Your task to perform on an android device: turn off translation in the chrome app Image 0: 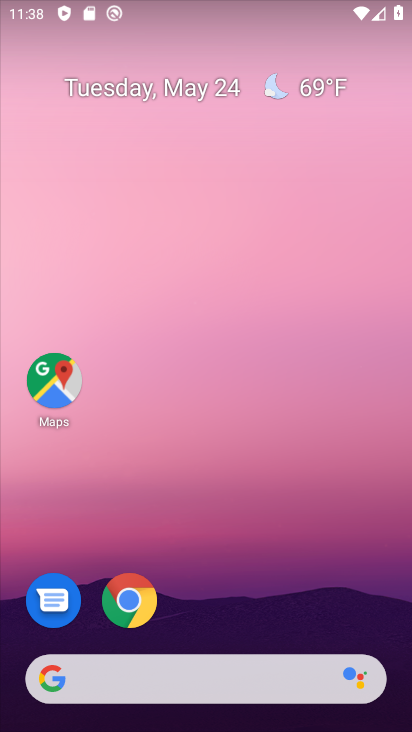
Step 0: drag from (375, 622) to (363, 180)
Your task to perform on an android device: turn off translation in the chrome app Image 1: 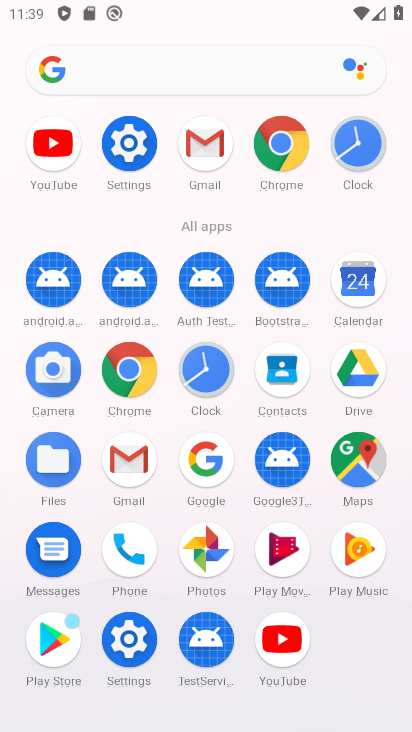
Step 1: click (132, 366)
Your task to perform on an android device: turn off translation in the chrome app Image 2: 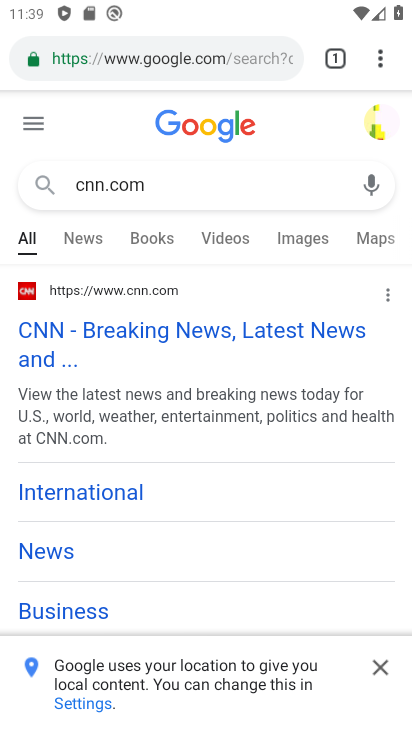
Step 2: click (384, 60)
Your task to perform on an android device: turn off translation in the chrome app Image 3: 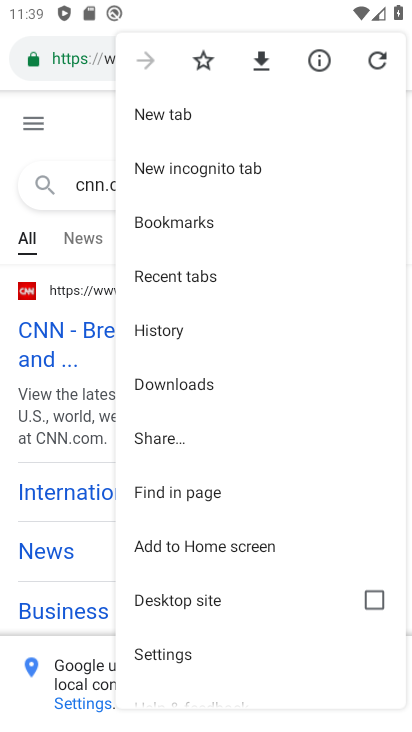
Step 3: drag from (244, 636) to (270, 499)
Your task to perform on an android device: turn off translation in the chrome app Image 4: 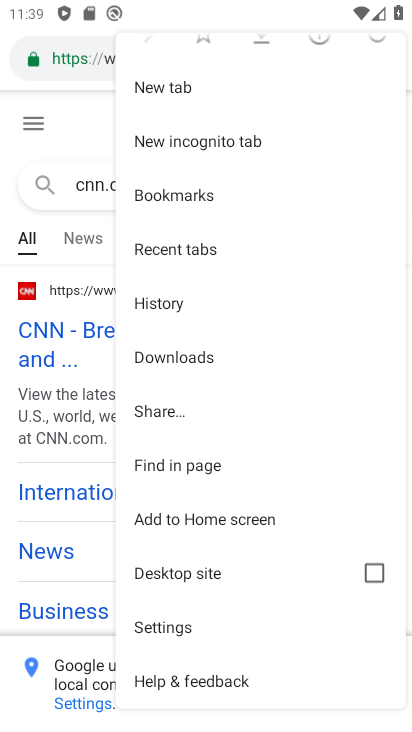
Step 4: click (222, 630)
Your task to perform on an android device: turn off translation in the chrome app Image 5: 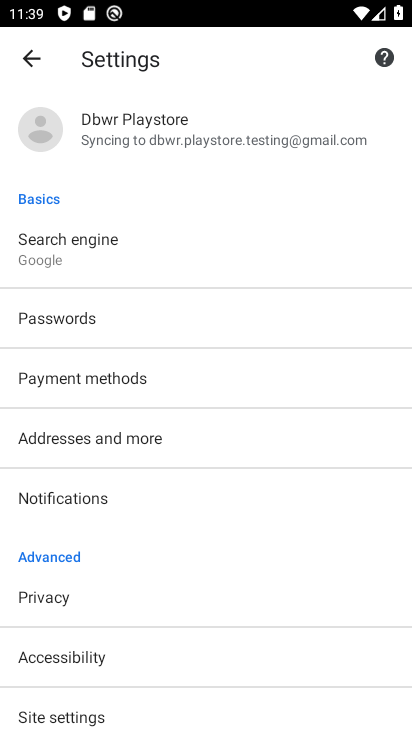
Step 5: drag from (281, 573) to (307, 479)
Your task to perform on an android device: turn off translation in the chrome app Image 6: 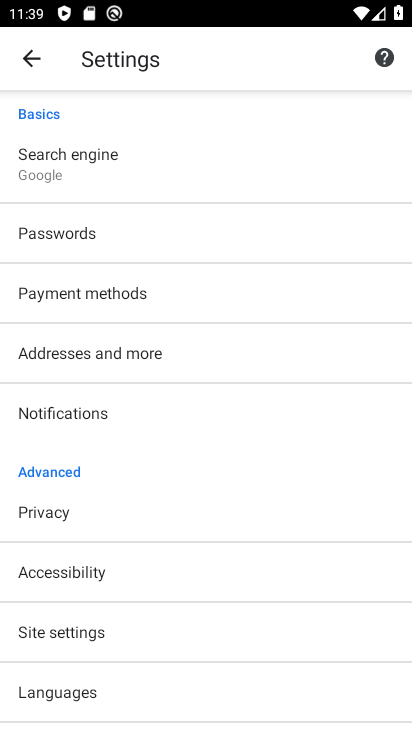
Step 6: drag from (326, 642) to (317, 507)
Your task to perform on an android device: turn off translation in the chrome app Image 7: 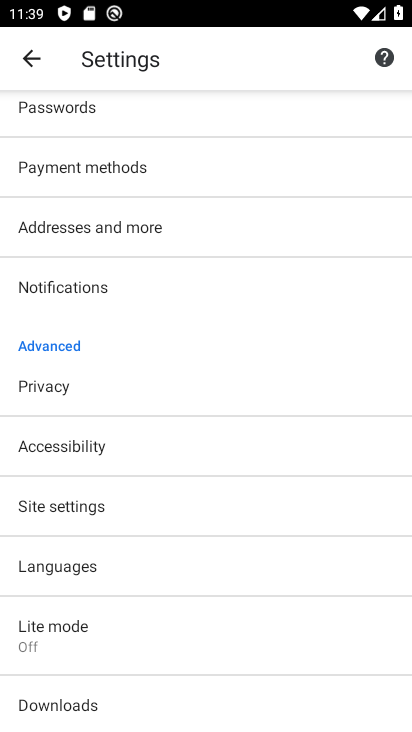
Step 7: drag from (298, 628) to (317, 537)
Your task to perform on an android device: turn off translation in the chrome app Image 8: 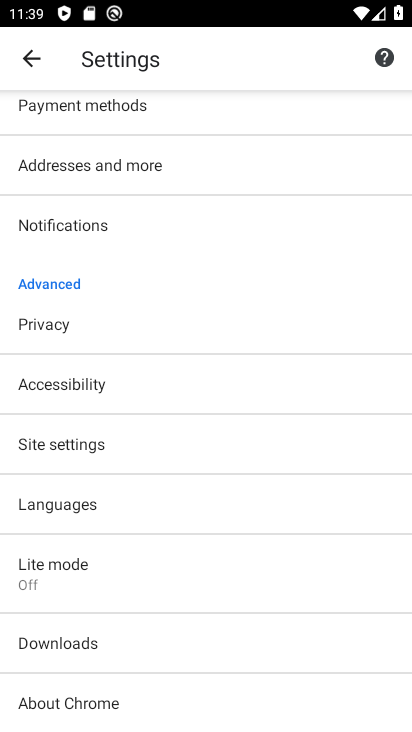
Step 8: drag from (336, 647) to (324, 536)
Your task to perform on an android device: turn off translation in the chrome app Image 9: 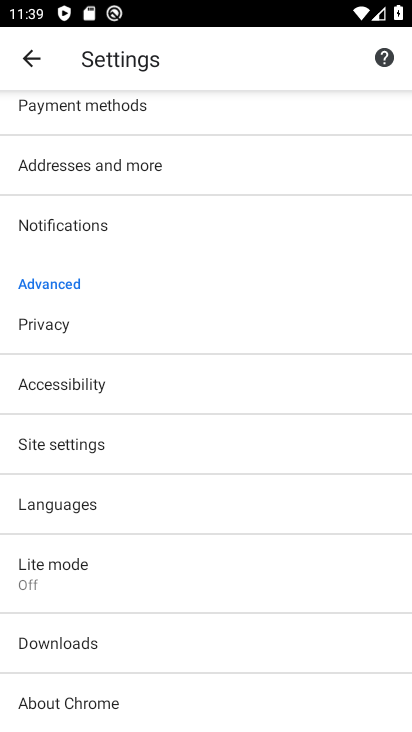
Step 9: drag from (341, 323) to (341, 405)
Your task to perform on an android device: turn off translation in the chrome app Image 10: 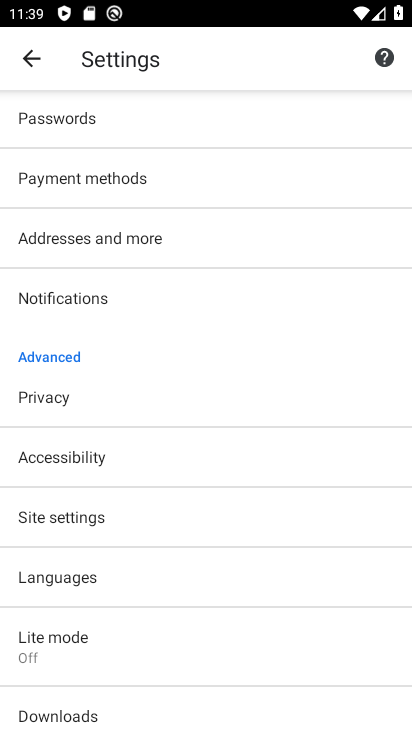
Step 10: drag from (346, 291) to (322, 430)
Your task to perform on an android device: turn off translation in the chrome app Image 11: 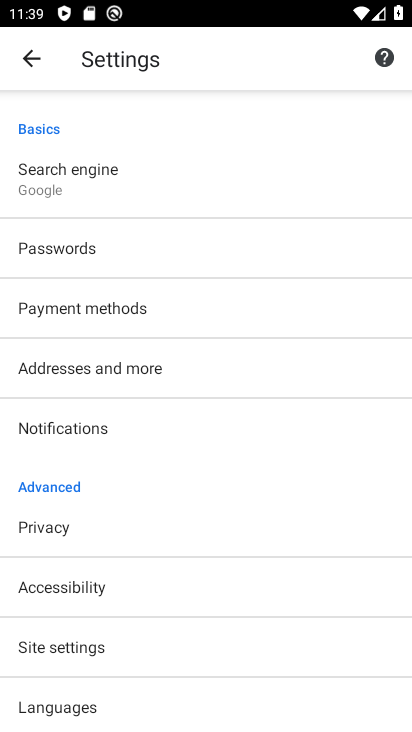
Step 11: drag from (303, 276) to (290, 365)
Your task to perform on an android device: turn off translation in the chrome app Image 12: 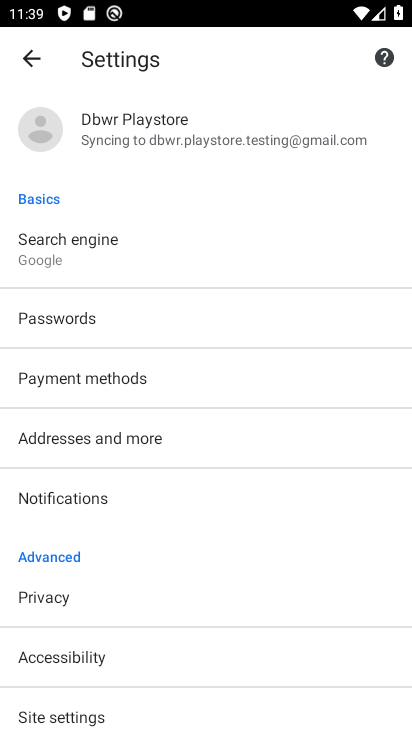
Step 12: drag from (304, 270) to (295, 434)
Your task to perform on an android device: turn off translation in the chrome app Image 13: 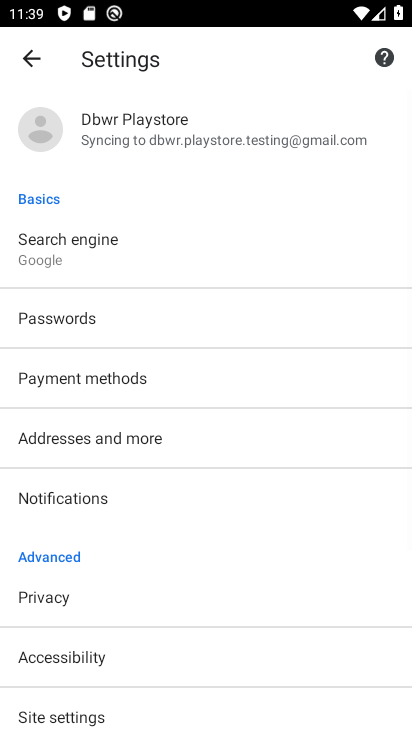
Step 13: drag from (298, 516) to (314, 409)
Your task to perform on an android device: turn off translation in the chrome app Image 14: 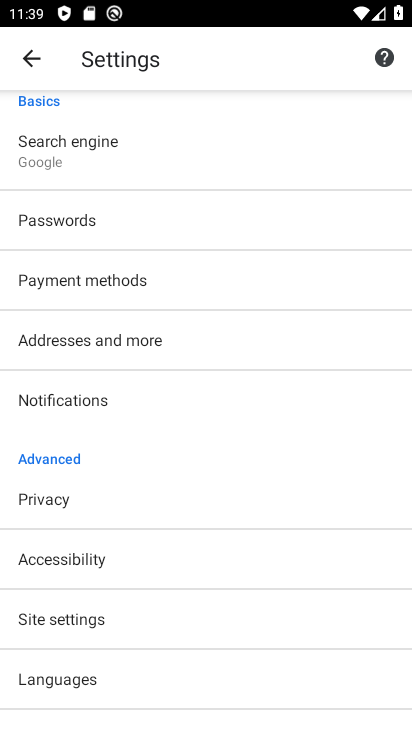
Step 14: drag from (335, 528) to (360, 412)
Your task to perform on an android device: turn off translation in the chrome app Image 15: 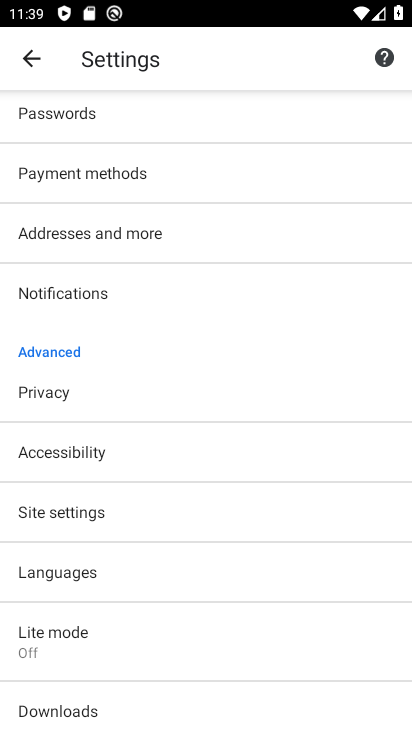
Step 15: drag from (346, 534) to (339, 418)
Your task to perform on an android device: turn off translation in the chrome app Image 16: 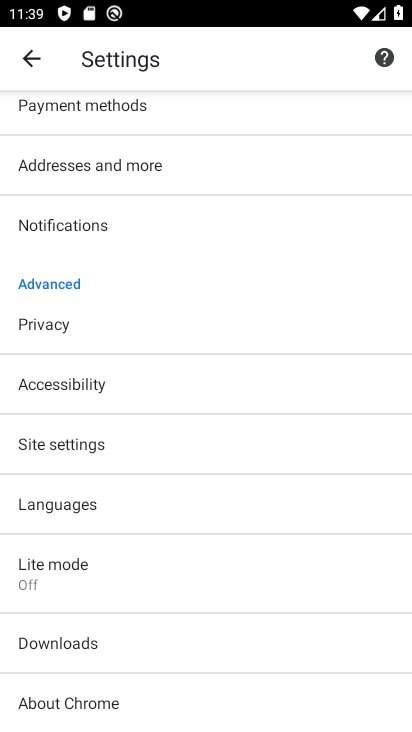
Step 16: click (272, 505)
Your task to perform on an android device: turn off translation in the chrome app Image 17: 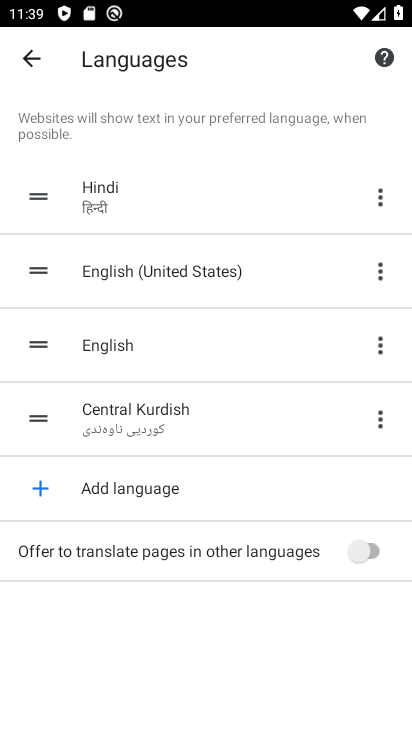
Step 17: task complete